Your task to perform on an android device: turn off wifi Image 0: 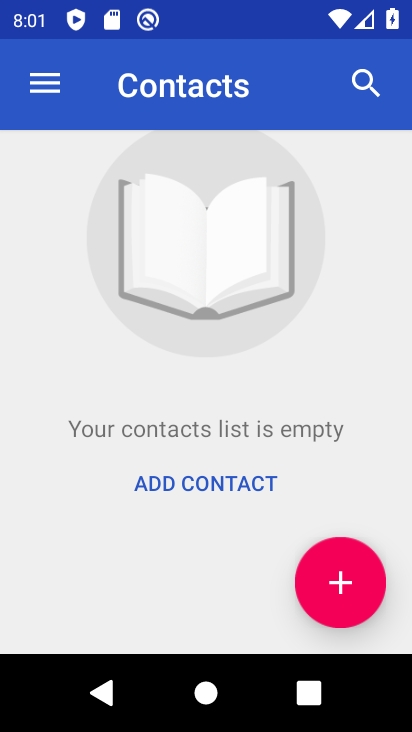
Step 0: press home button
Your task to perform on an android device: turn off wifi Image 1: 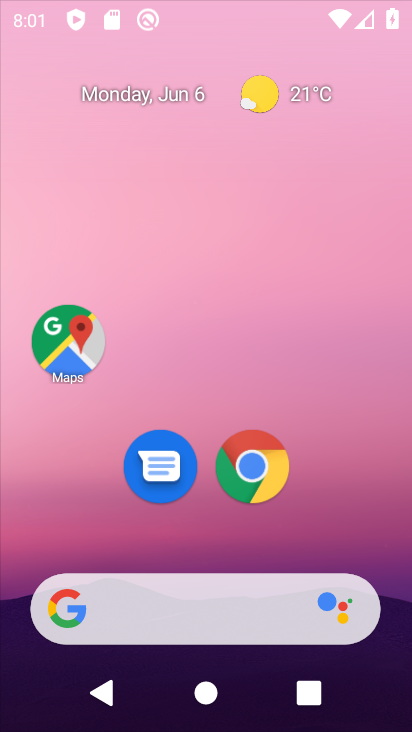
Step 1: drag from (232, 520) to (246, 312)
Your task to perform on an android device: turn off wifi Image 2: 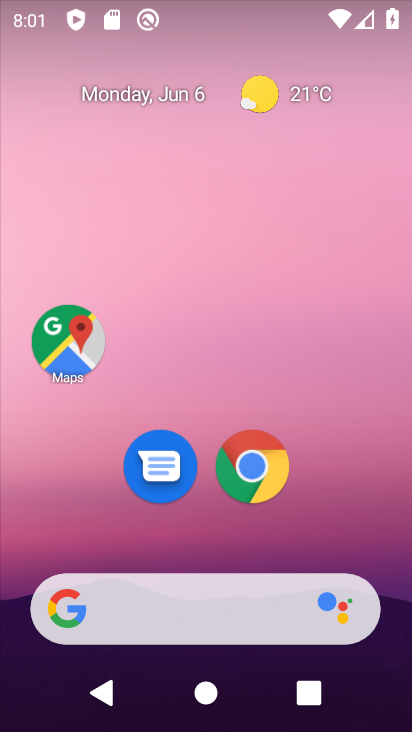
Step 2: drag from (187, 545) to (261, 132)
Your task to perform on an android device: turn off wifi Image 3: 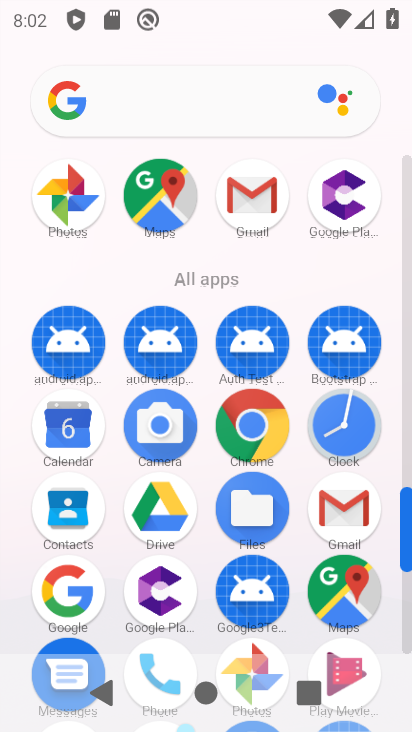
Step 3: drag from (203, 552) to (288, 163)
Your task to perform on an android device: turn off wifi Image 4: 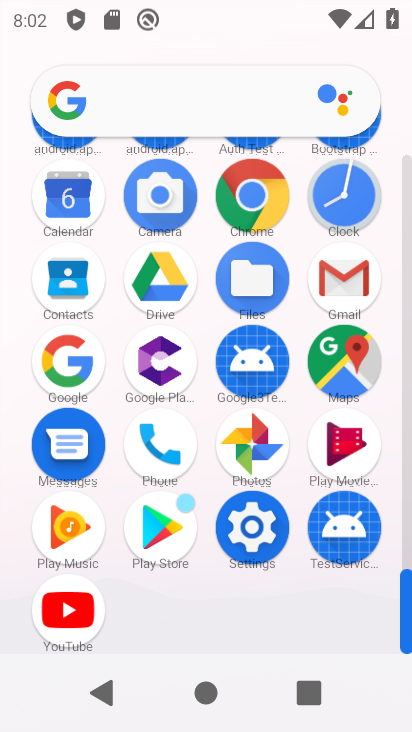
Step 4: click (241, 536)
Your task to perform on an android device: turn off wifi Image 5: 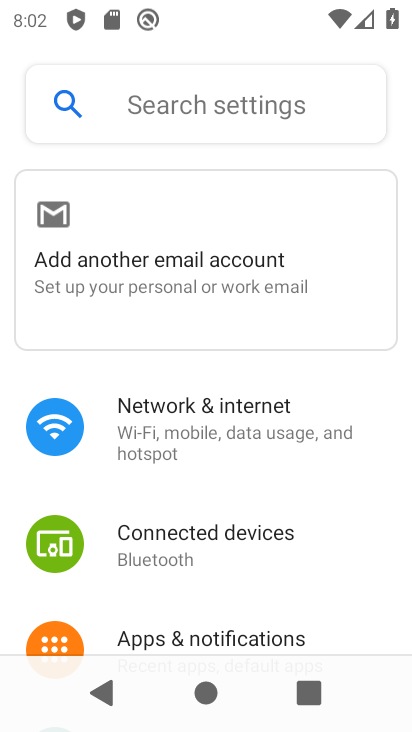
Step 5: click (182, 443)
Your task to perform on an android device: turn off wifi Image 6: 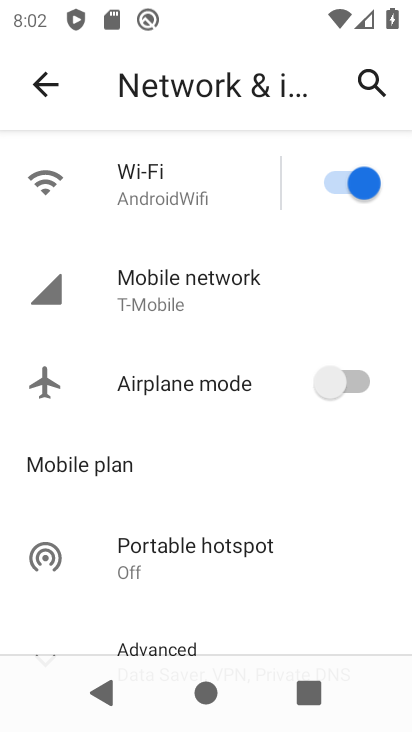
Step 6: click (241, 198)
Your task to perform on an android device: turn off wifi Image 7: 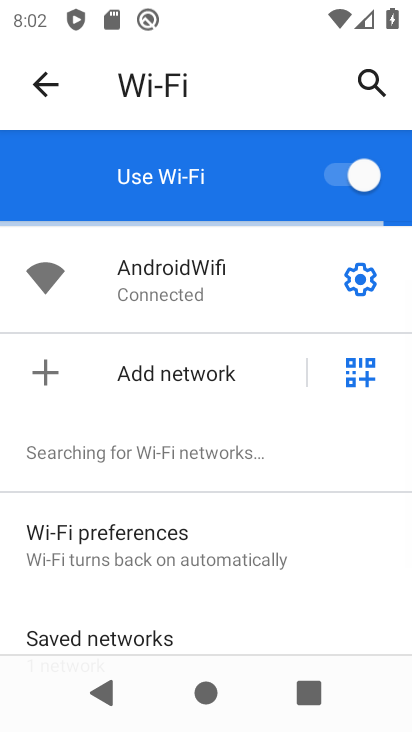
Step 7: click (352, 190)
Your task to perform on an android device: turn off wifi Image 8: 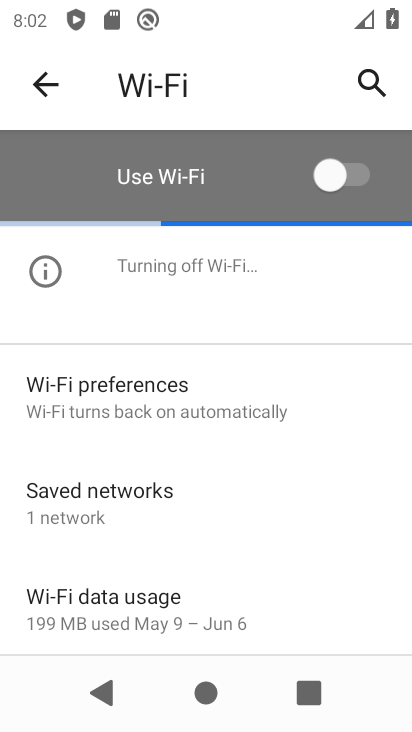
Step 8: task complete